Your task to perform on an android device: What's the weather going to be tomorrow? Image 0: 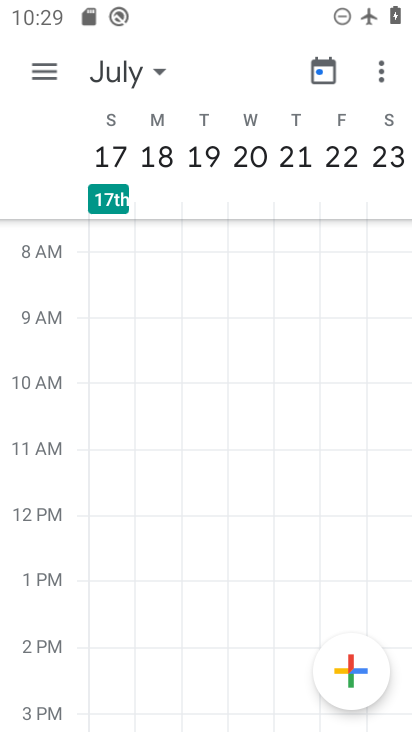
Step 0: press home button
Your task to perform on an android device: What's the weather going to be tomorrow? Image 1: 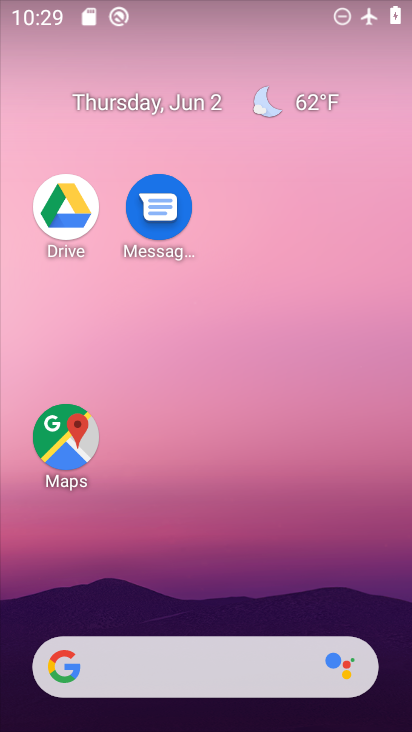
Step 1: drag from (225, 618) to (208, 23)
Your task to perform on an android device: What's the weather going to be tomorrow? Image 2: 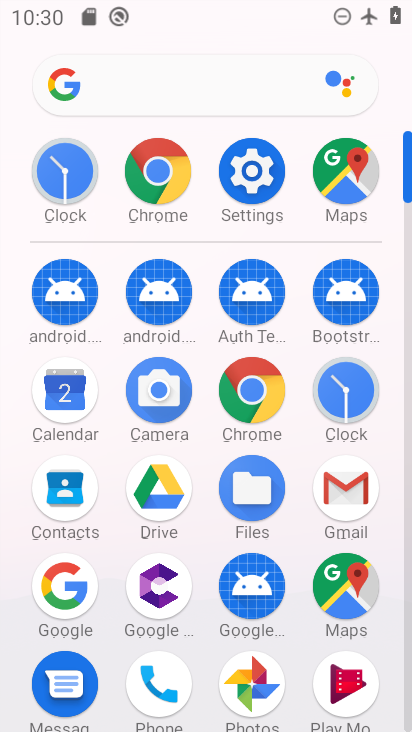
Step 2: click (60, 577)
Your task to perform on an android device: What's the weather going to be tomorrow? Image 3: 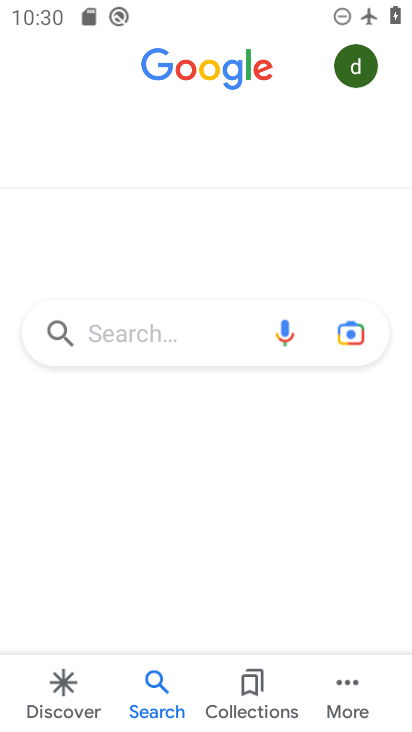
Step 3: click (92, 346)
Your task to perform on an android device: What's the weather going to be tomorrow? Image 4: 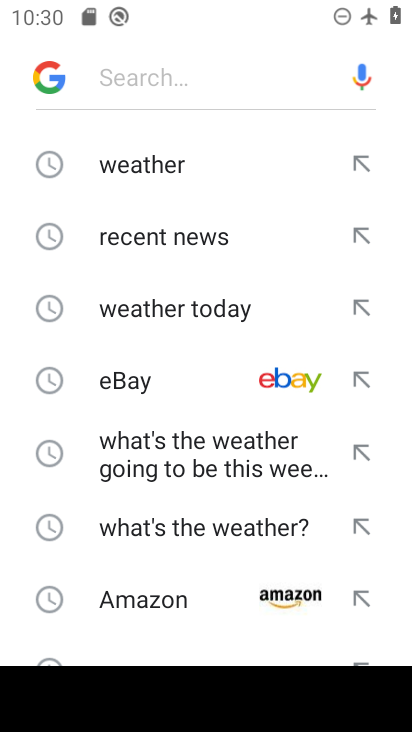
Step 4: click (144, 154)
Your task to perform on an android device: What's the weather going to be tomorrow? Image 5: 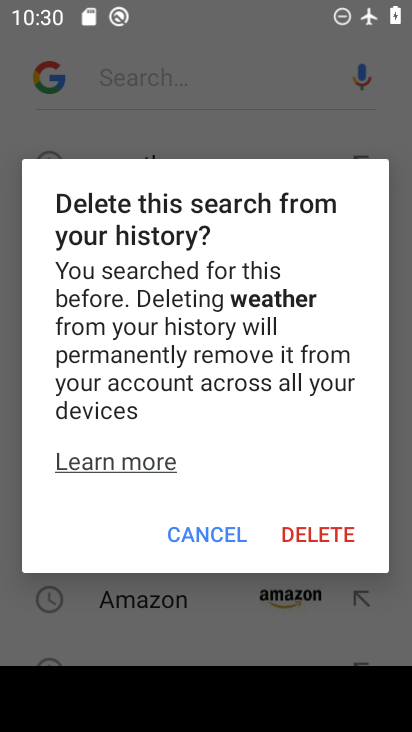
Step 5: task complete